Your task to perform on an android device: turn on priority inbox in the gmail app Image 0: 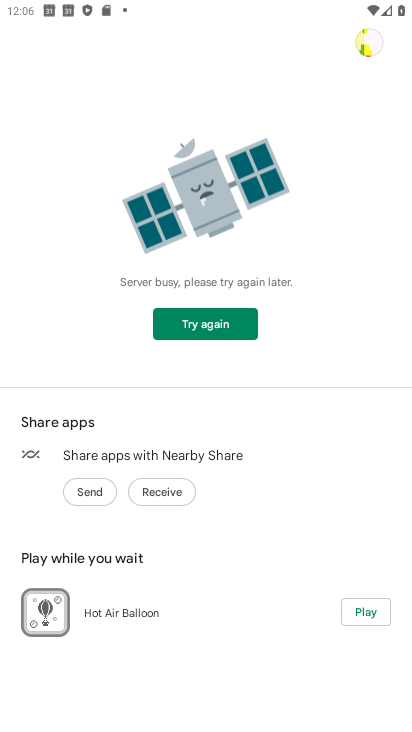
Step 0: press home button
Your task to perform on an android device: turn on priority inbox in the gmail app Image 1: 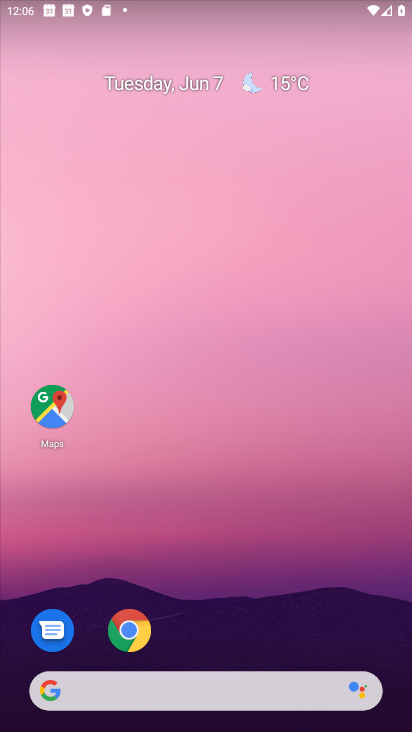
Step 1: drag from (359, 585) to (315, 216)
Your task to perform on an android device: turn on priority inbox in the gmail app Image 2: 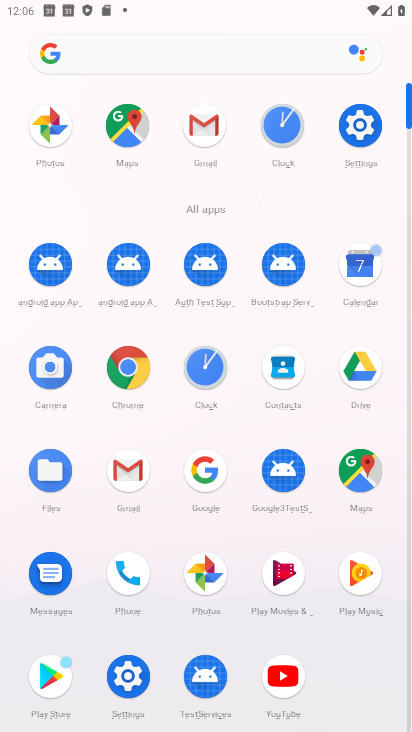
Step 2: click (131, 470)
Your task to perform on an android device: turn on priority inbox in the gmail app Image 3: 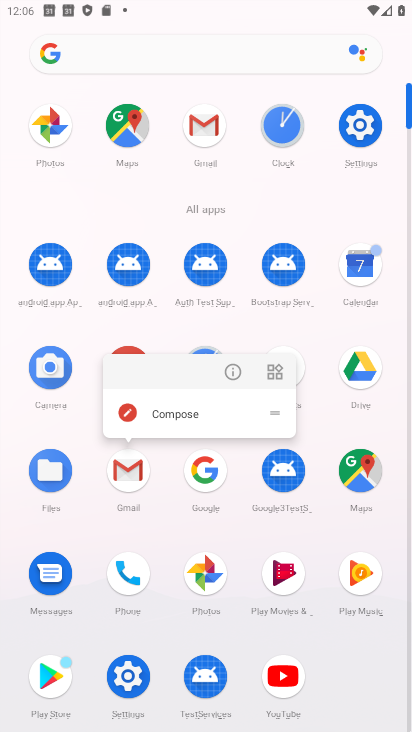
Step 3: click (130, 473)
Your task to perform on an android device: turn on priority inbox in the gmail app Image 4: 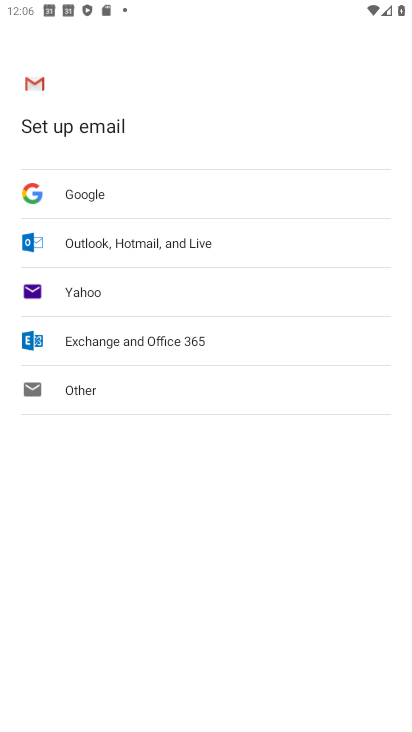
Step 4: press back button
Your task to perform on an android device: turn on priority inbox in the gmail app Image 5: 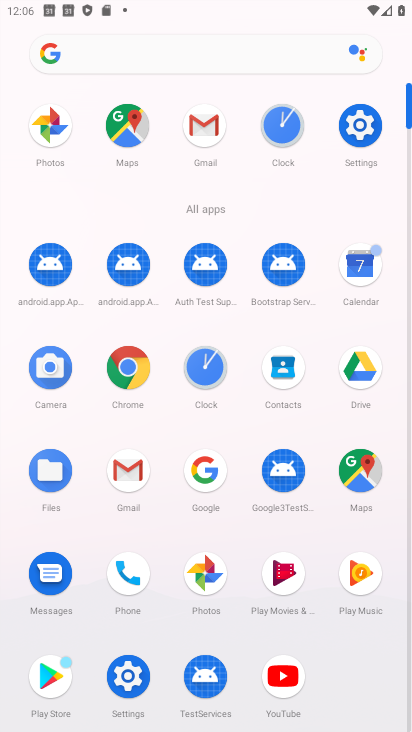
Step 5: click (133, 481)
Your task to perform on an android device: turn on priority inbox in the gmail app Image 6: 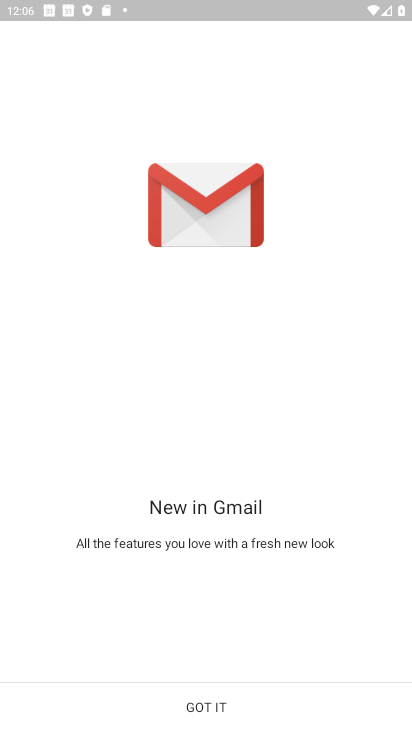
Step 6: click (216, 712)
Your task to perform on an android device: turn on priority inbox in the gmail app Image 7: 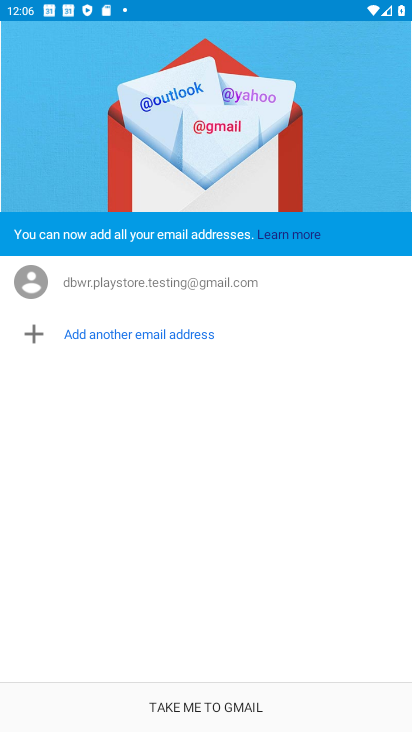
Step 7: click (235, 699)
Your task to perform on an android device: turn on priority inbox in the gmail app Image 8: 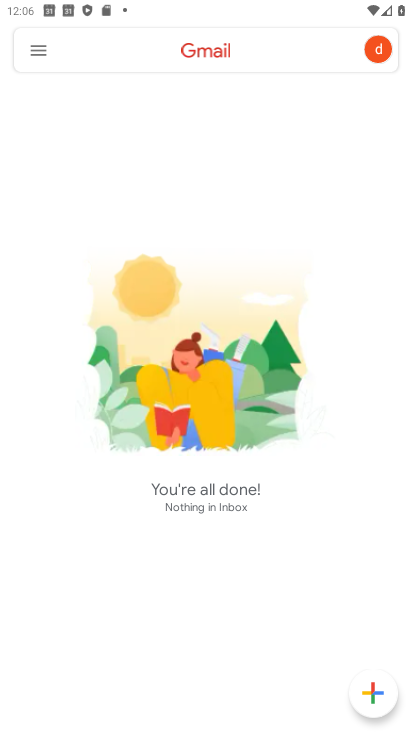
Step 8: click (30, 56)
Your task to perform on an android device: turn on priority inbox in the gmail app Image 9: 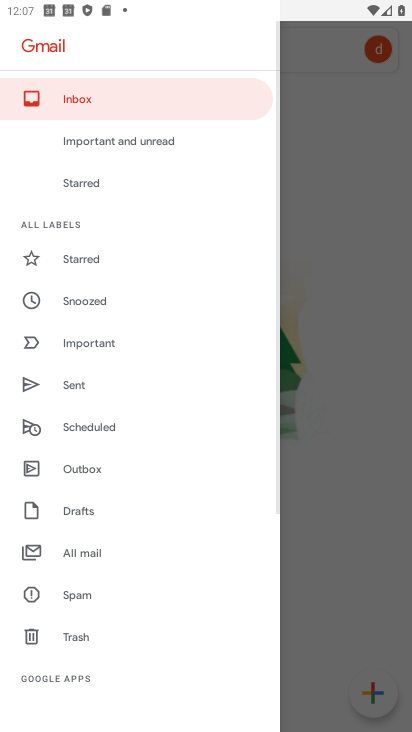
Step 9: drag from (156, 656) to (178, 398)
Your task to perform on an android device: turn on priority inbox in the gmail app Image 10: 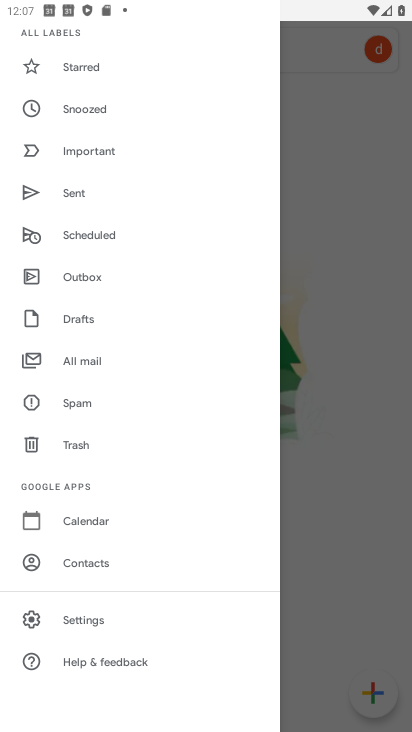
Step 10: click (132, 620)
Your task to perform on an android device: turn on priority inbox in the gmail app Image 11: 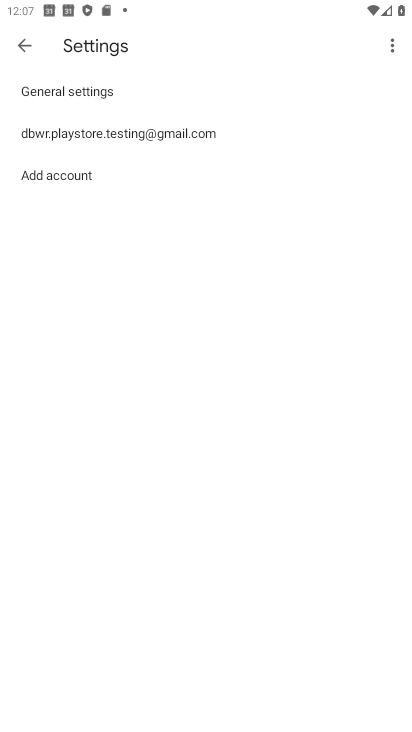
Step 11: click (217, 132)
Your task to perform on an android device: turn on priority inbox in the gmail app Image 12: 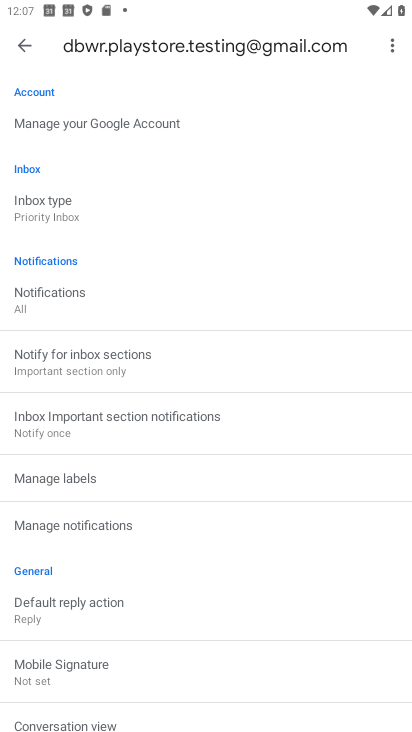
Step 12: drag from (214, 529) to (239, 268)
Your task to perform on an android device: turn on priority inbox in the gmail app Image 13: 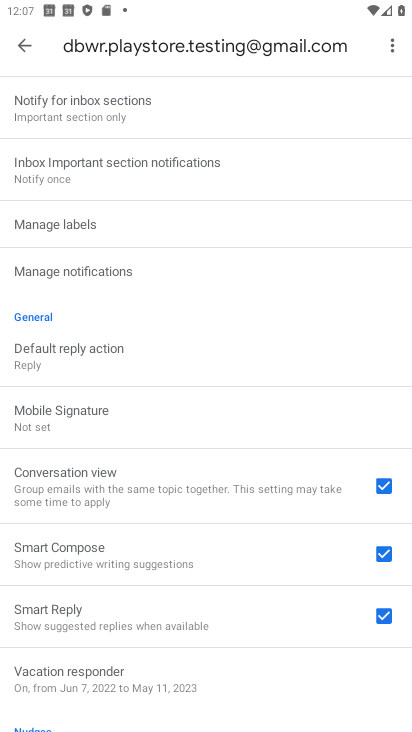
Step 13: drag from (255, 235) to (291, 526)
Your task to perform on an android device: turn on priority inbox in the gmail app Image 14: 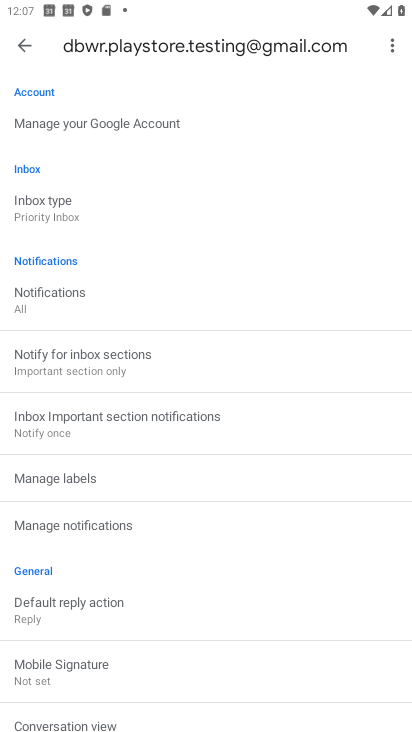
Step 14: click (131, 212)
Your task to perform on an android device: turn on priority inbox in the gmail app Image 15: 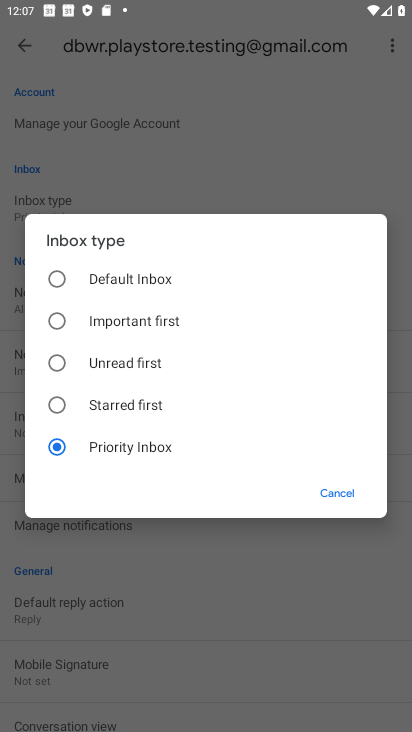
Step 15: task complete